Your task to perform on an android device: Toggle the flashlight Image 0: 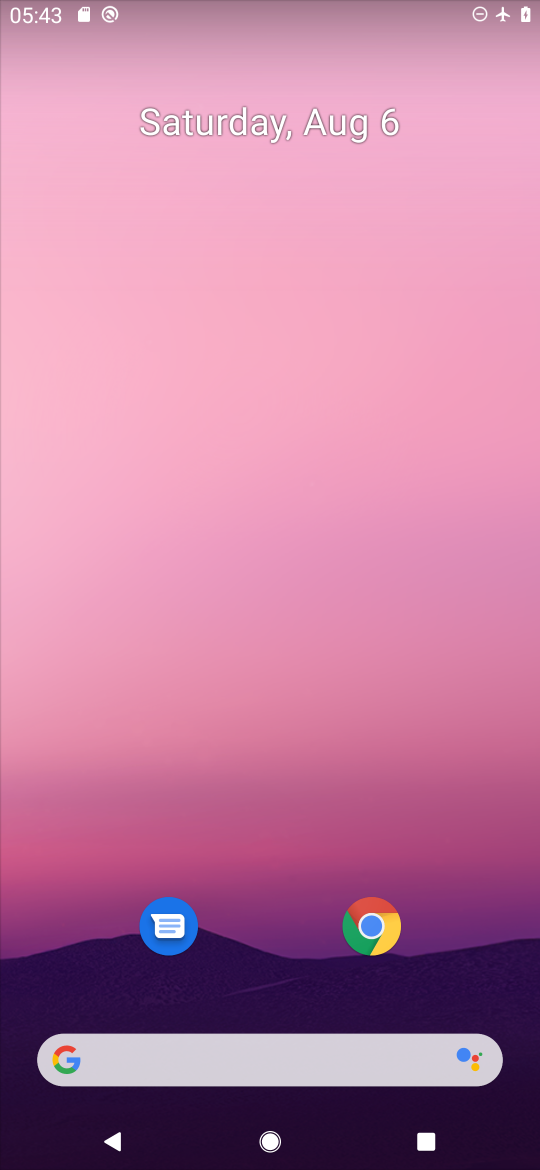
Step 0: drag from (267, 885) to (267, 419)
Your task to perform on an android device: Toggle the flashlight Image 1: 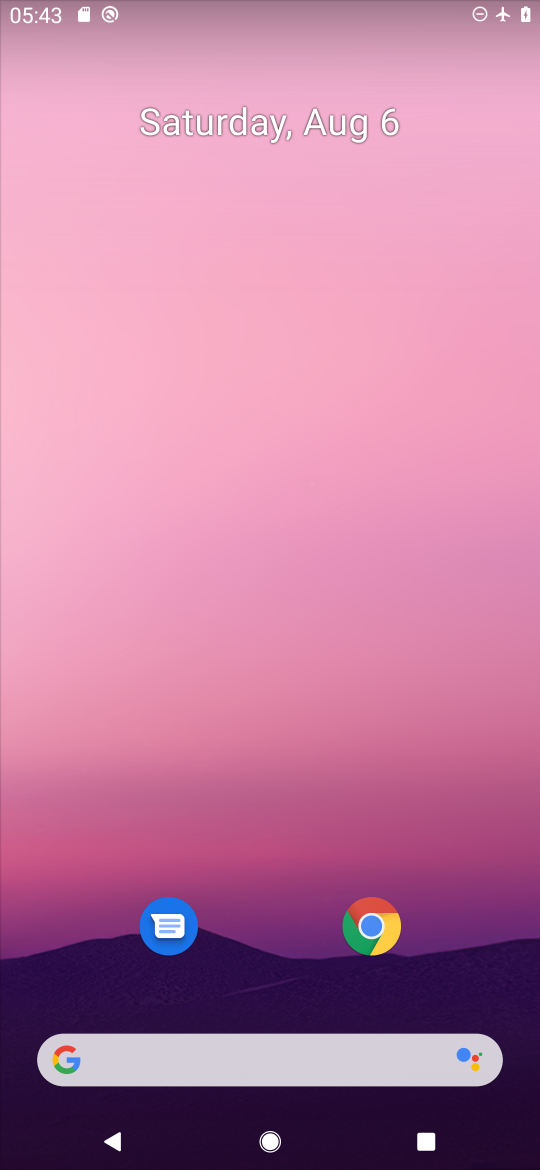
Step 1: drag from (260, 647) to (260, 388)
Your task to perform on an android device: Toggle the flashlight Image 2: 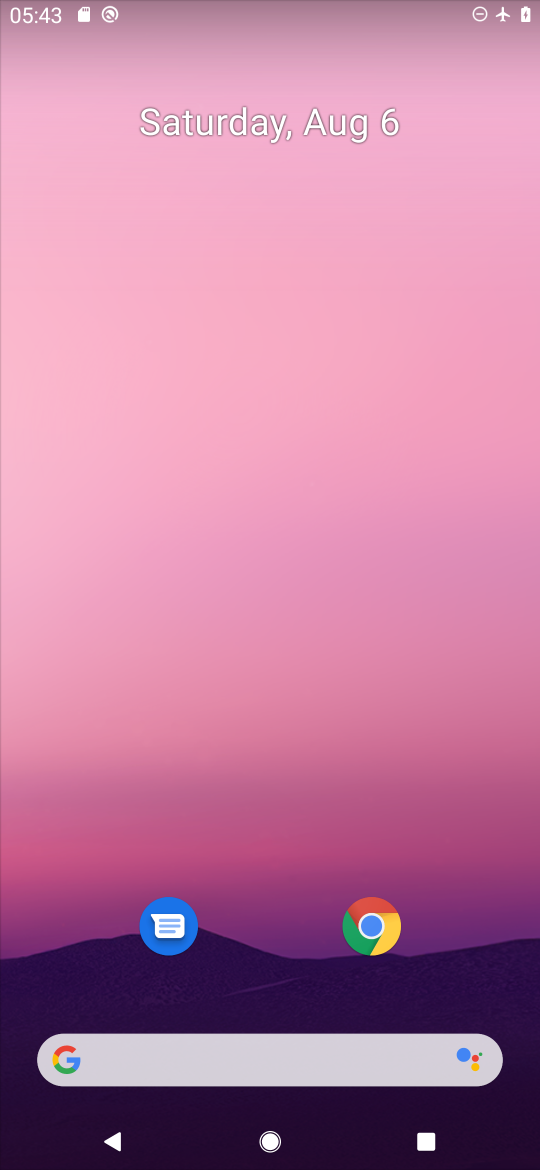
Step 2: drag from (241, 956) to (239, 237)
Your task to perform on an android device: Toggle the flashlight Image 3: 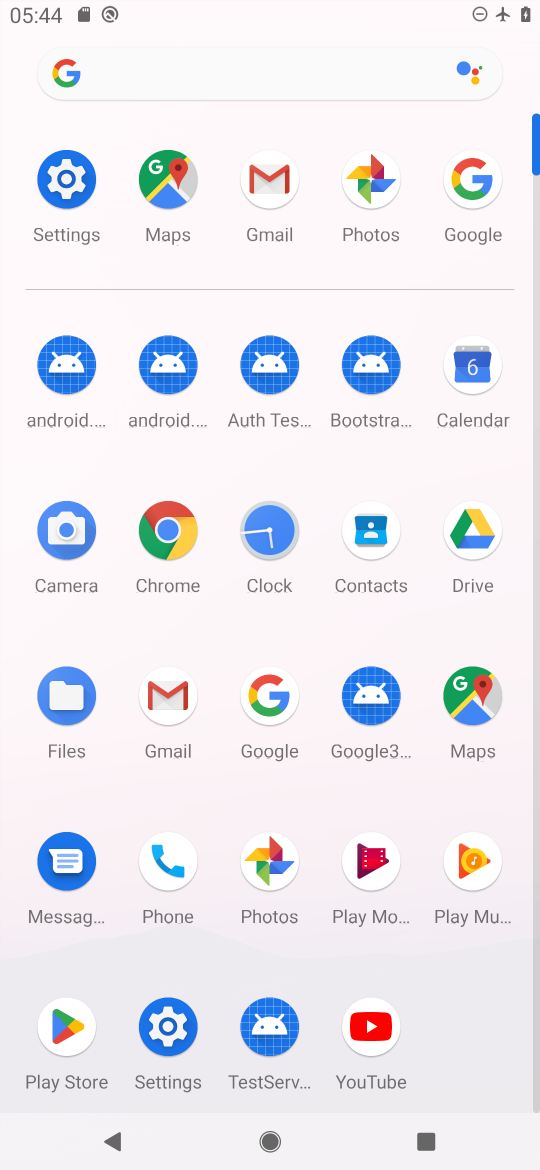
Step 3: click (83, 171)
Your task to perform on an android device: Toggle the flashlight Image 4: 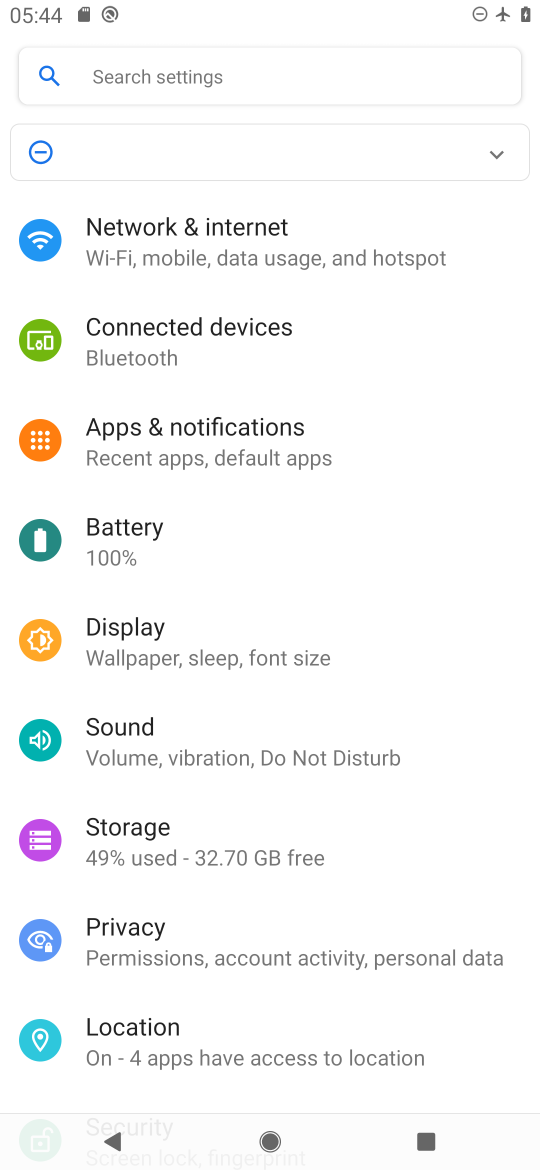
Step 4: task complete